Your task to perform on an android device: Is it going to rain this weekend? Image 0: 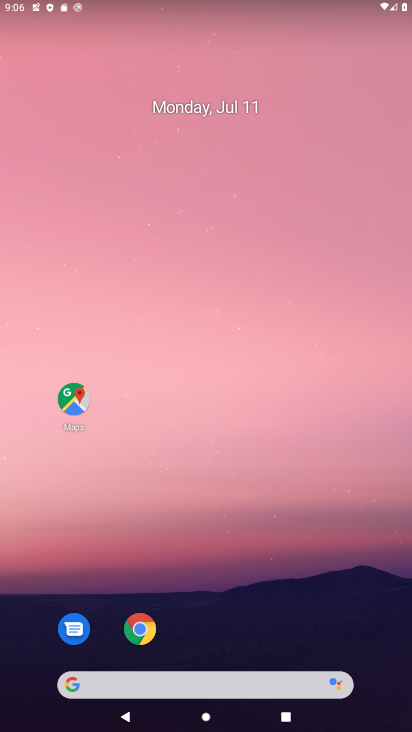
Step 0: click (134, 680)
Your task to perform on an android device: Is it going to rain this weekend? Image 1: 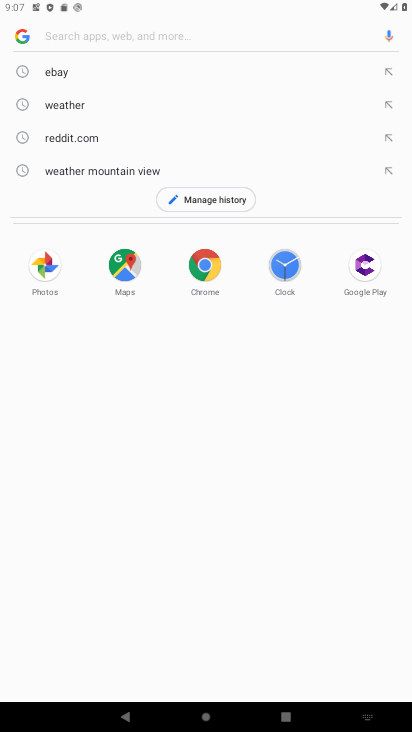
Step 1: type "Is it going to rain this weekend?"
Your task to perform on an android device: Is it going to rain this weekend? Image 2: 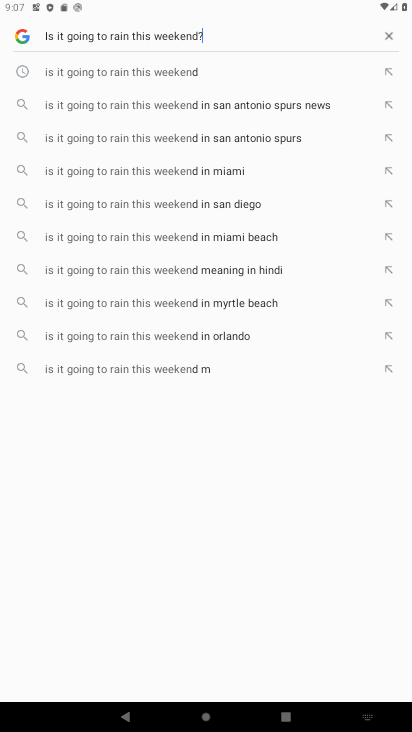
Step 2: type ""
Your task to perform on an android device: Is it going to rain this weekend? Image 3: 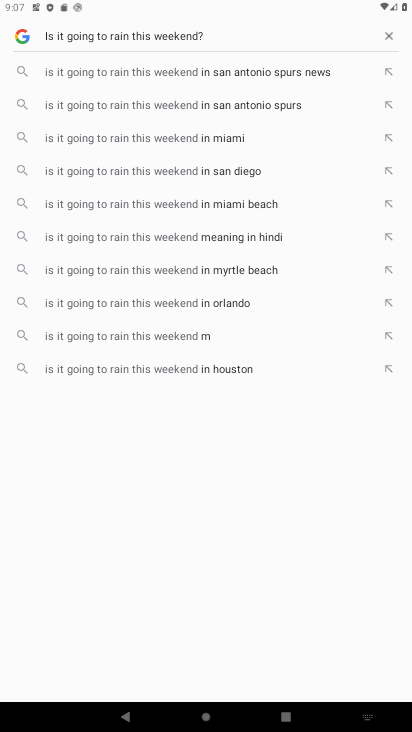
Step 3: type "  "
Your task to perform on an android device: Is it going to rain this weekend? Image 4: 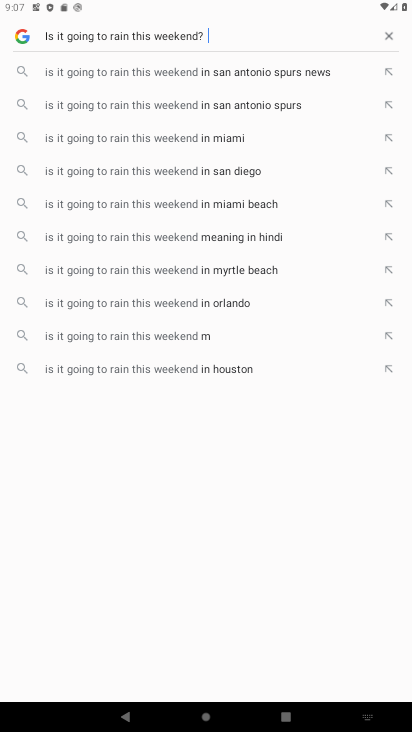
Step 4: task complete